Your task to perform on an android device: Go to Google maps Image 0: 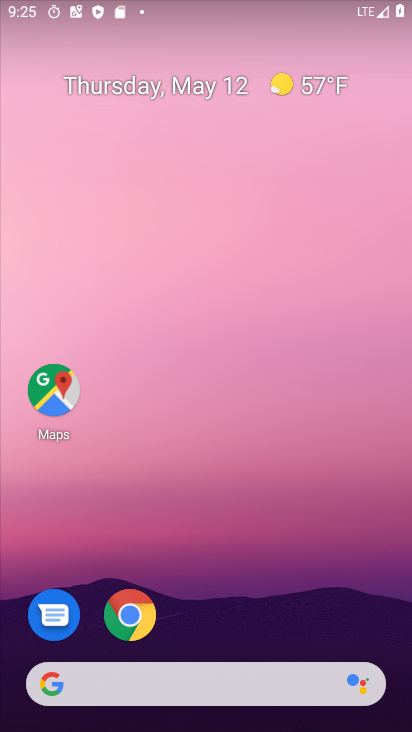
Step 0: drag from (243, 561) to (235, 46)
Your task to perform on an android device: Go to Google maps Image 1: 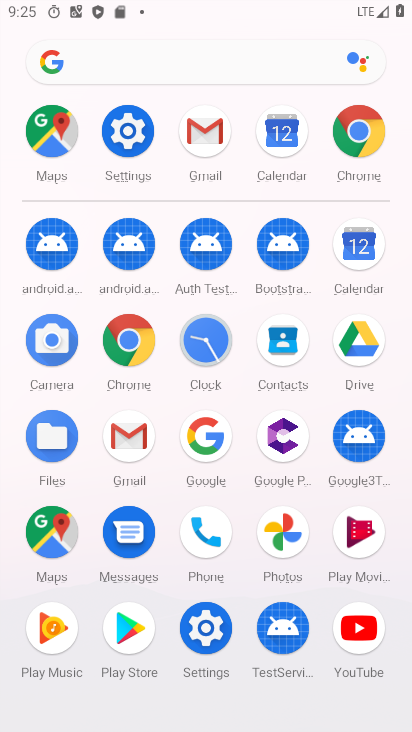
Step 1: click (42, 526)
Your task to perform on an android device: Go to Google maps Image 2: 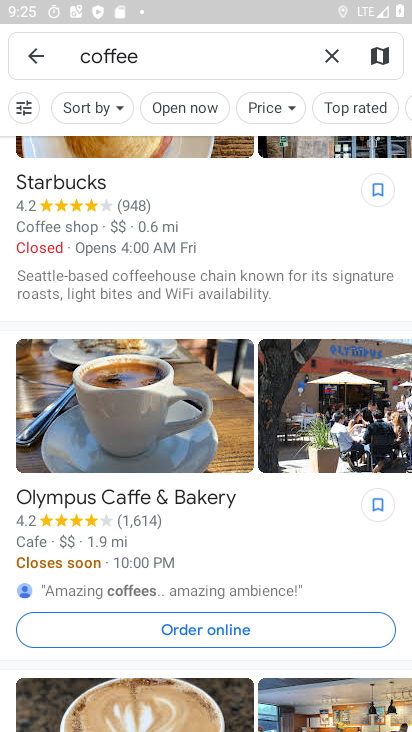
Step 2: click (31, 52)
Your task to perform on an android device: Go to Google maps Image 3: 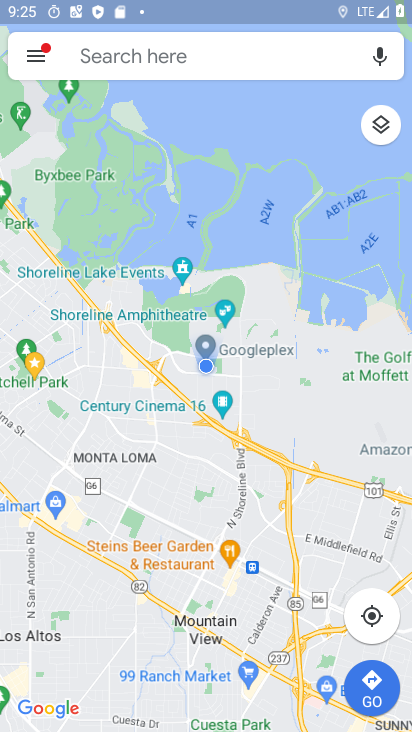
Step 3: task complete